Your task to perform on an android device: Add "beats solo 3" to the cart on newegg.com Image 0: 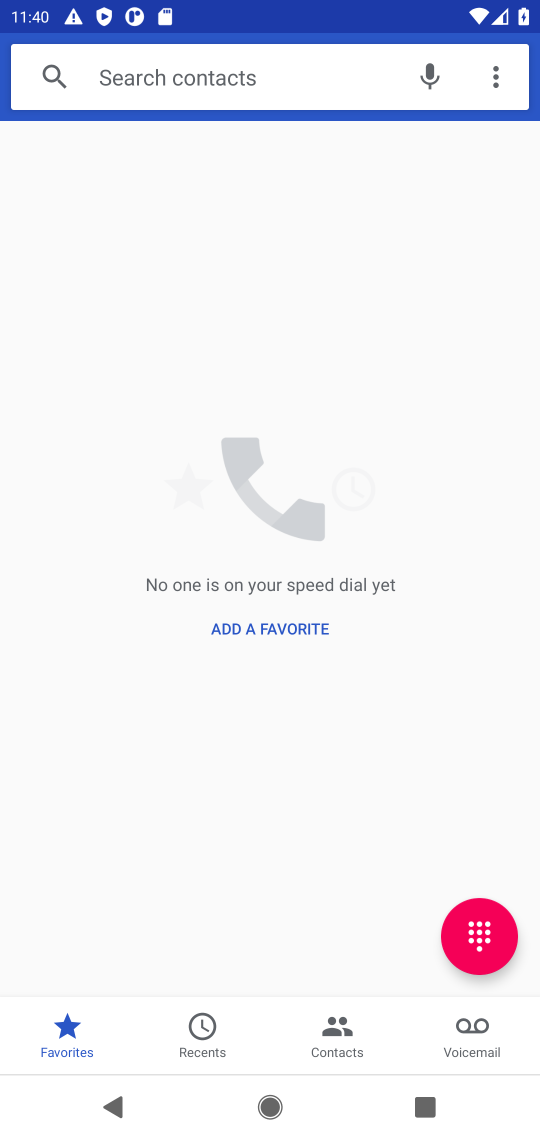
Step 0: press home button
Your task to perform on an android device: Add "beats solo 3" to the cart on newegg.com Image 1: 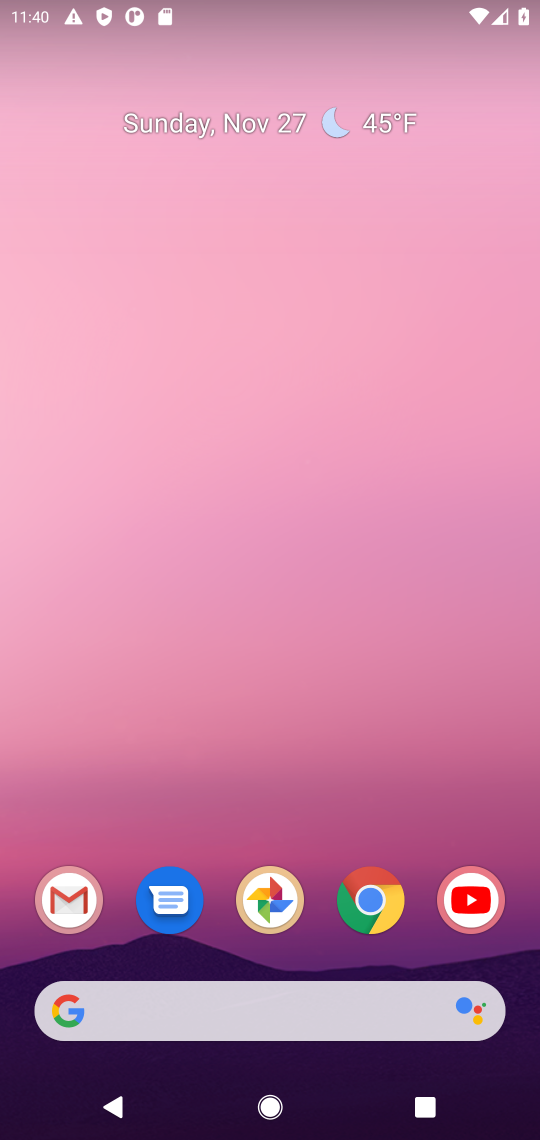
Step 1: click (376, 898)
Your task to perform on an android device: Add "beats solo 3" to the cart on newegg.com Image 2: 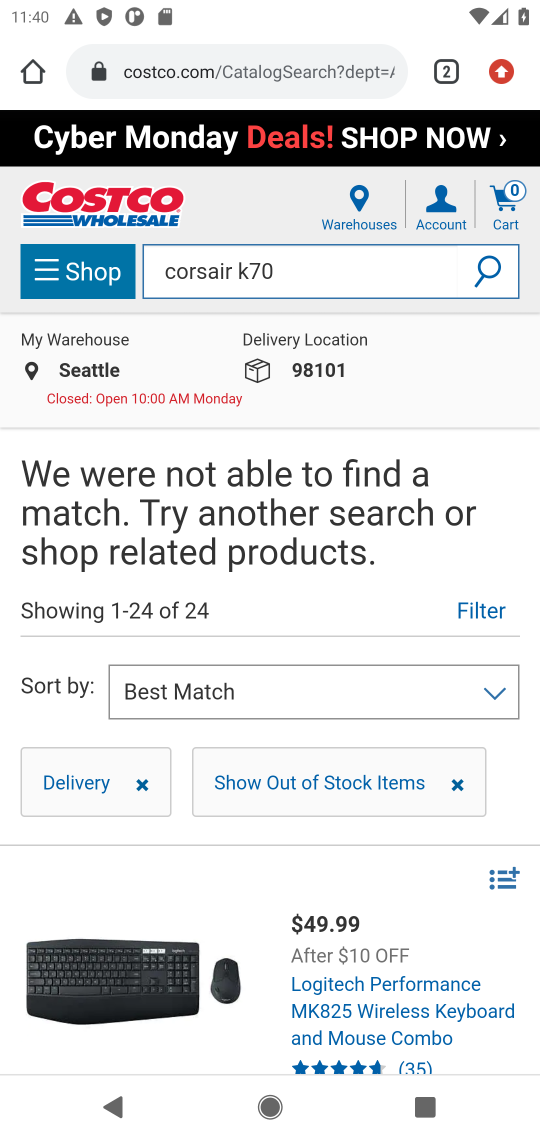
Step 2: click (259, 68)
Your task to perform on an android device: Add "beats solo 3" to the cart on newegg.com Image 3: 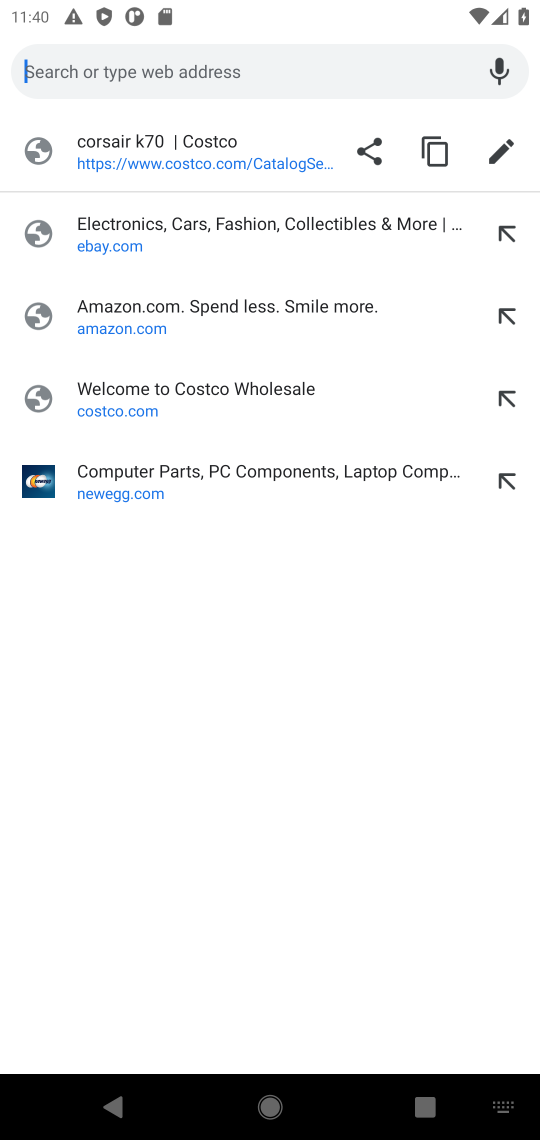
Step 3: click (96, 476)
Your task to perform on an android device: Add "beats solo 3" to the cart on newegg.com Image 4: 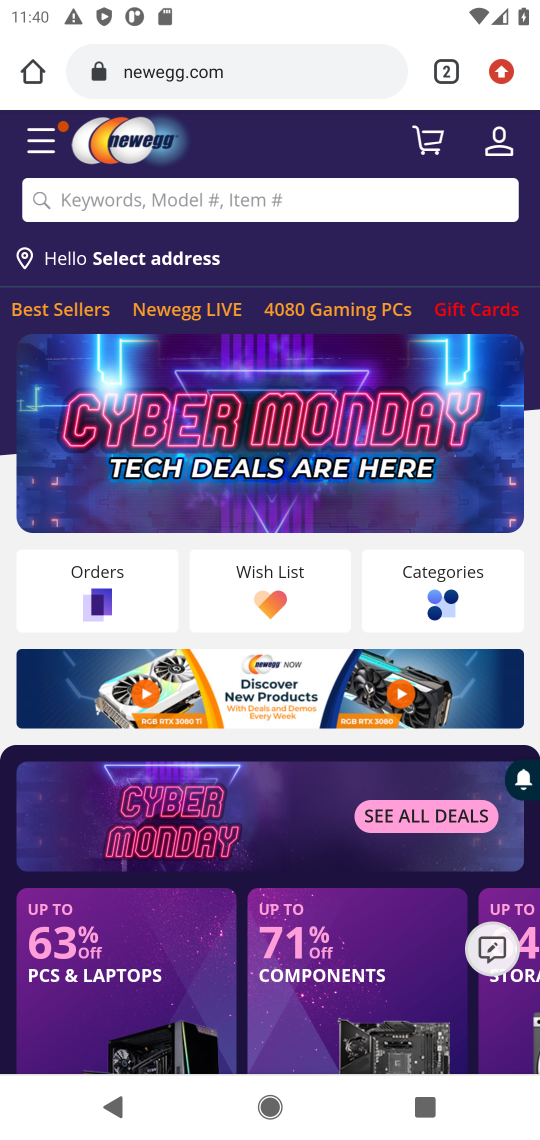
Step 4: click (115, 204)
Your task to perform on an android device: Add "beats solo 3" to the cart on newegg.com Image 5: 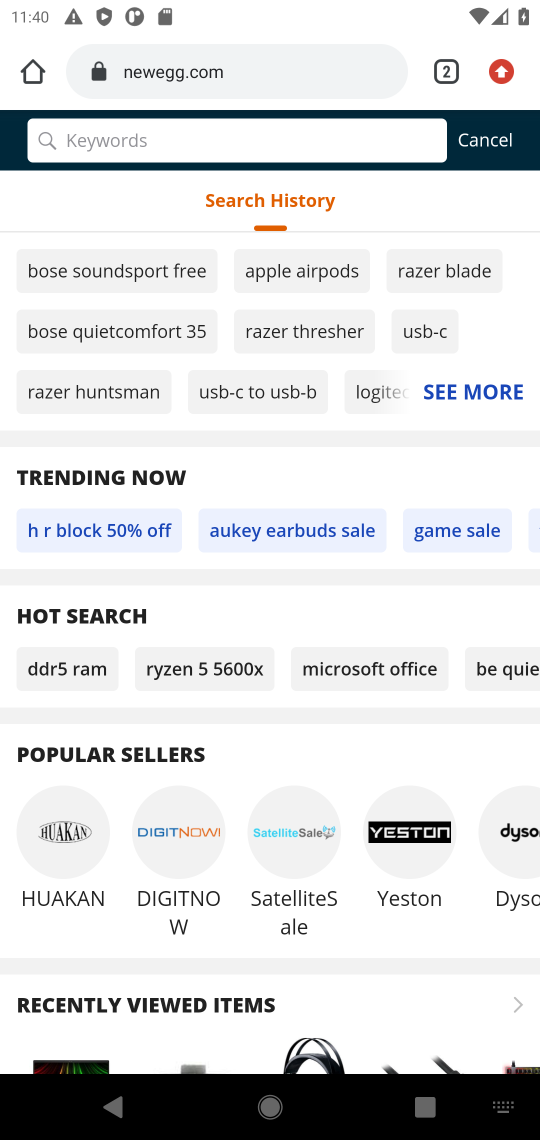
Step 5: type "beats solo 3"
Your task to perform on an android device: Add "beats solo 3" to the cart on newegg.com Image 6: 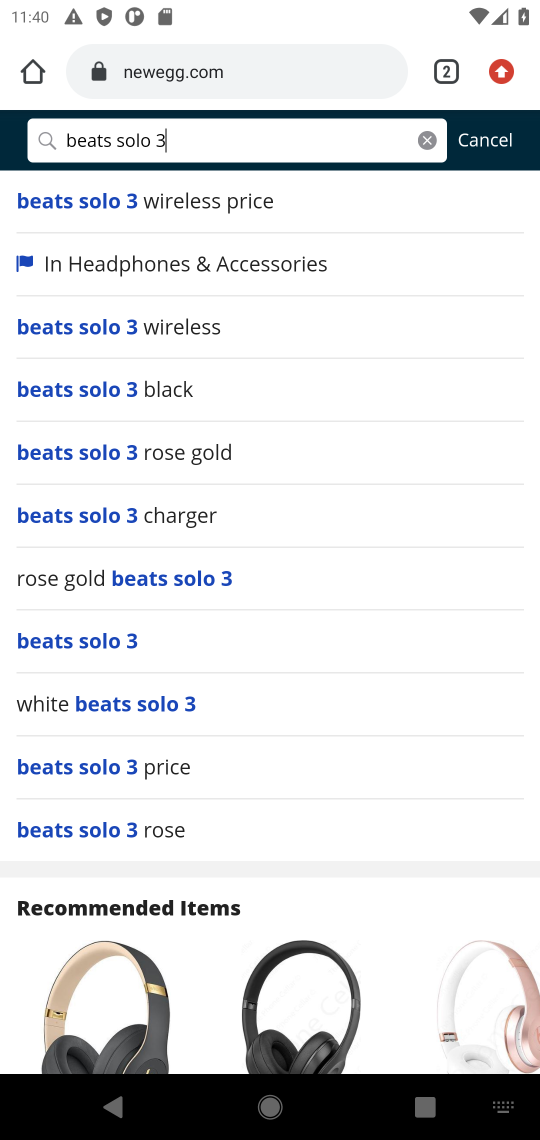
Step 6: click (85, 645)
Your task to perform on an android device: Add "beats solo 3" to the cart on newegg.com Image 7: 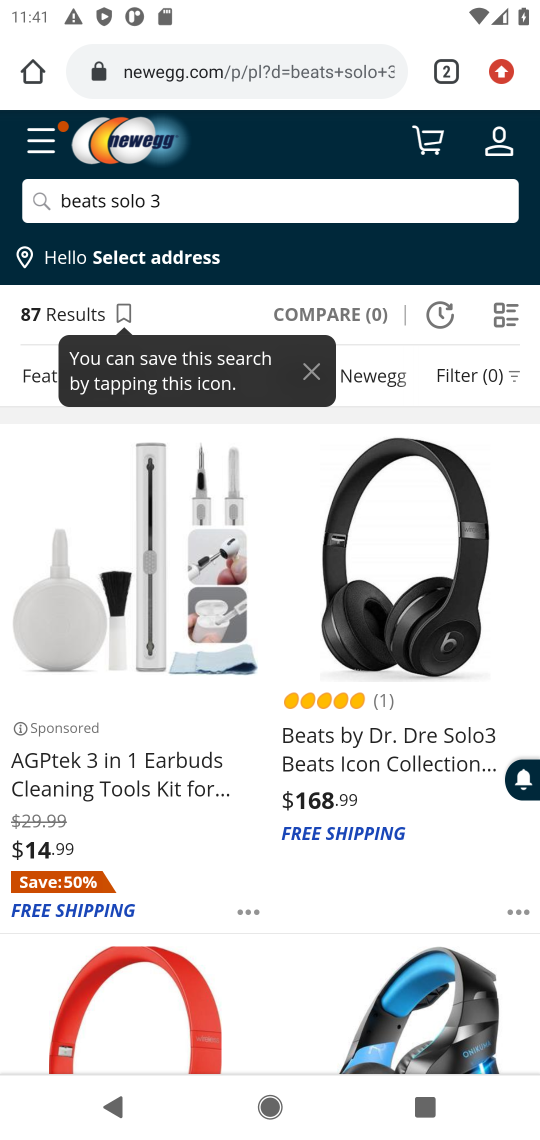
Step 7: click (398, 580)
Your task to perform on an android device: Add "beats solo 3" to the cart on newegg.com Image 8: 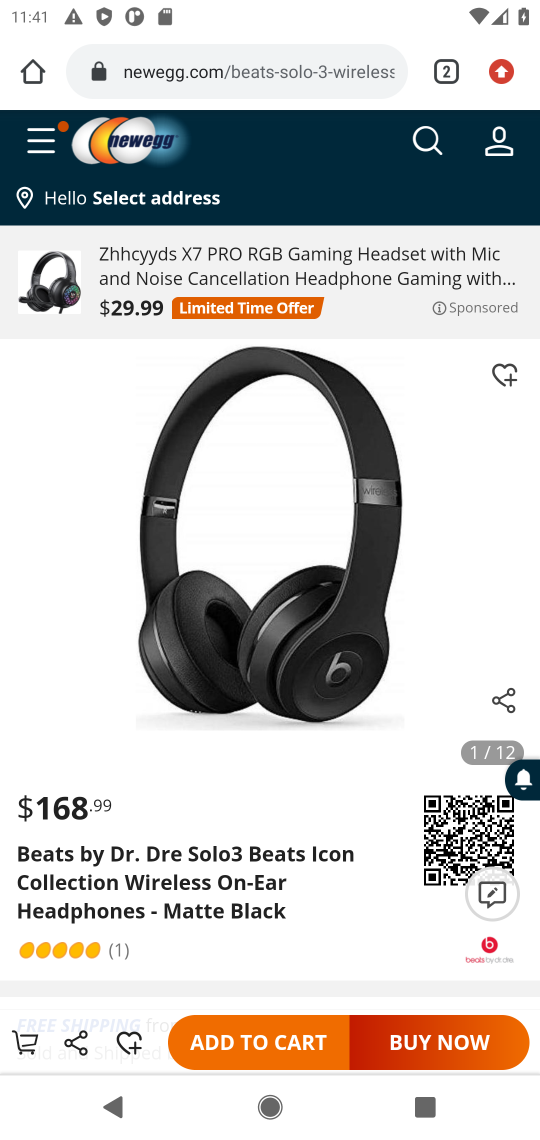
Step 8: drag from (186, 797) to (217, 526)
Your task to perform on an android device: Add "beats solo 3" to the cart on newegg.com Image 9: 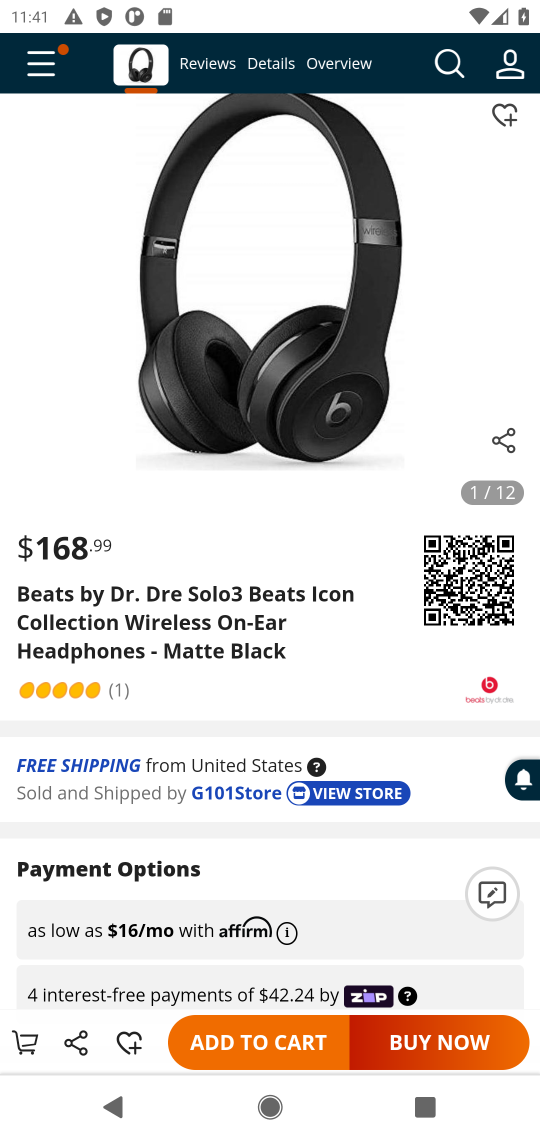
Step 9: click (230, 1042)
Your task to perform on an android device: Add "beats solo 3" to the cart on newegg.com Image 10: 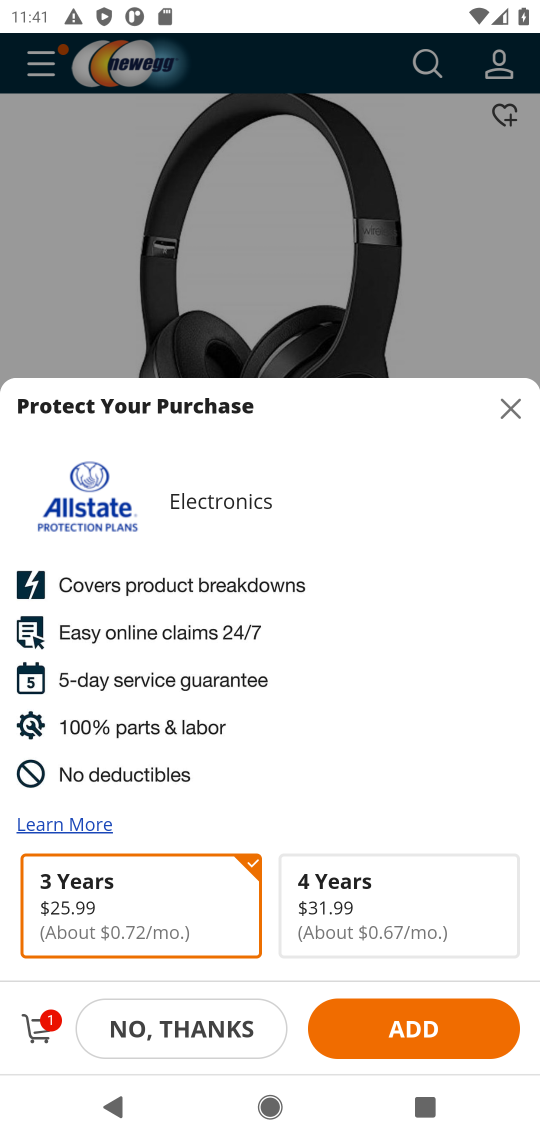
Step 10: task complete